Your task to perform on an android device: Open Yahoo.com Image 0: 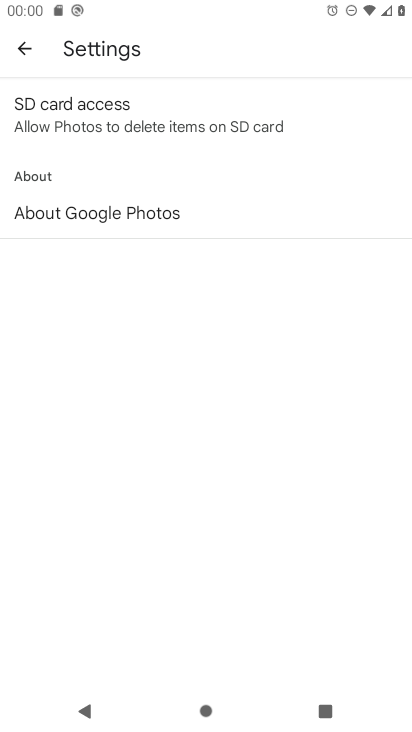
Step 0: press home button
Your task to perform on an android device: Open Yahoo.com Image 1: 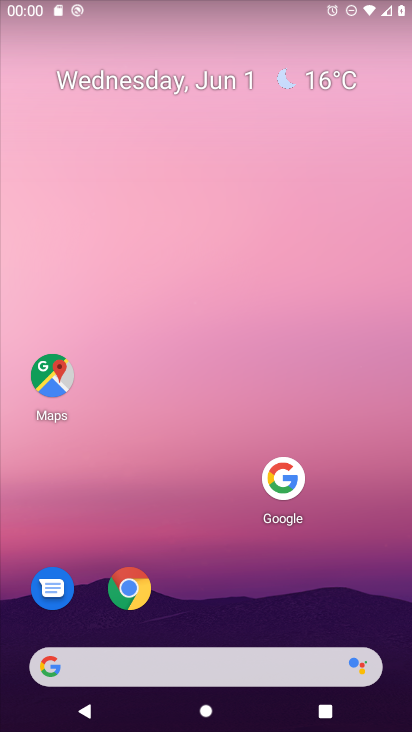
Step 1: click (133, 590)
Your task to perform on an android device: Open Yahoo.com Image 2: 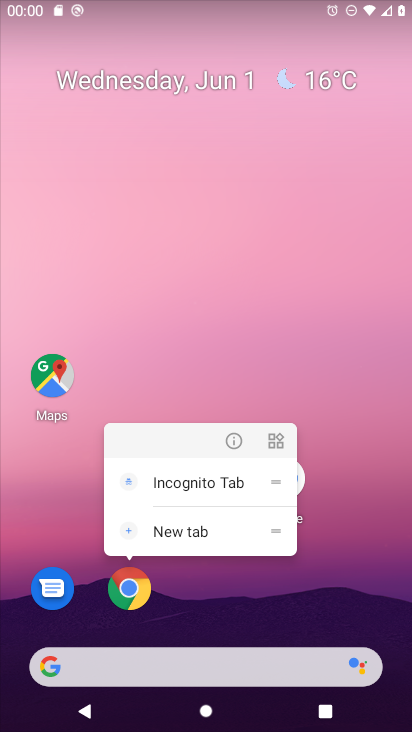
Step 2: click (133, 590)
Your task to perform on an android device: Open Yahoo.com Image 3: 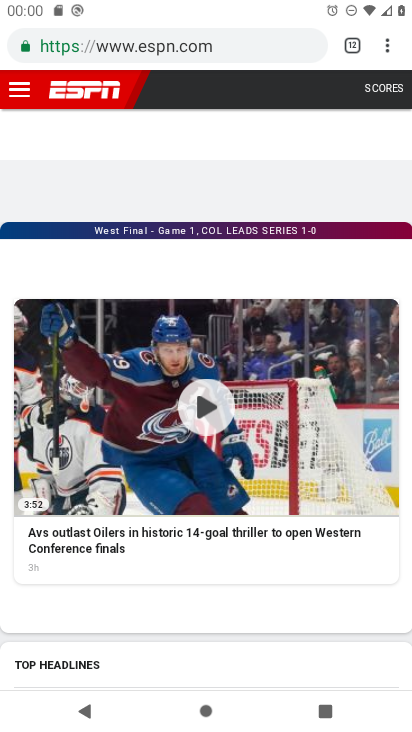
Step 3: drag from (390, 52) to (216, 95)
Your task to perform on an android device: Open Yahoo.com Image 4: 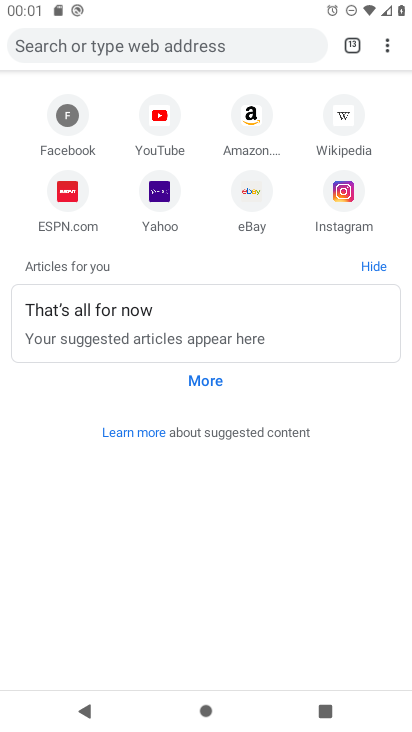
Step 4: click (155, 196)
Your task to perform on an android device: Open Yahoo.com Image 5: 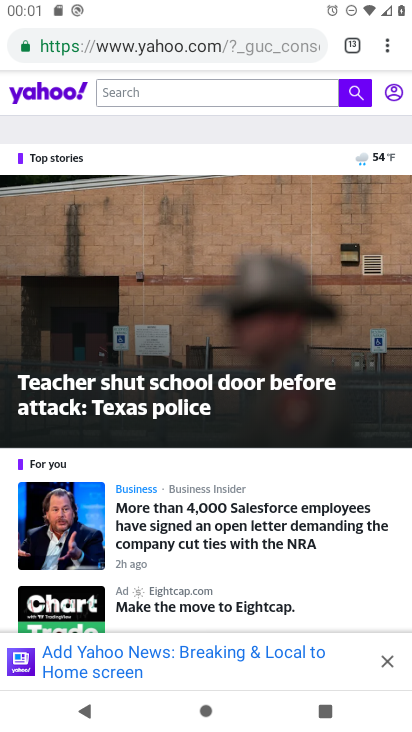
Step 5: task complete